Your task to perform on an android device: Is it going to rain tomorrow? Image 0: 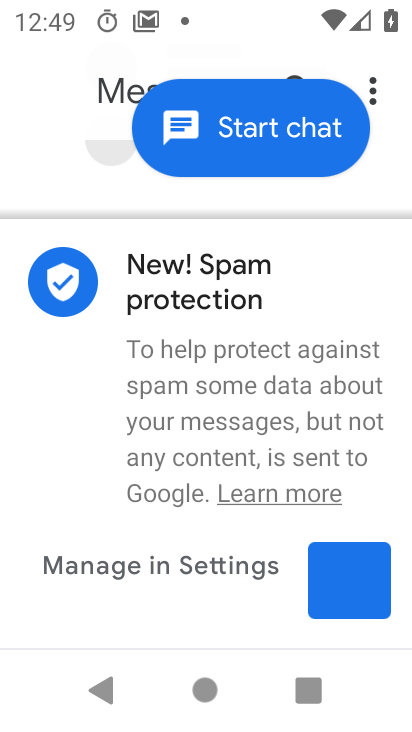
Step 0: click (401, 431)
Your task to perform on an android device: Is it going to rain tomorrow? Image 1: 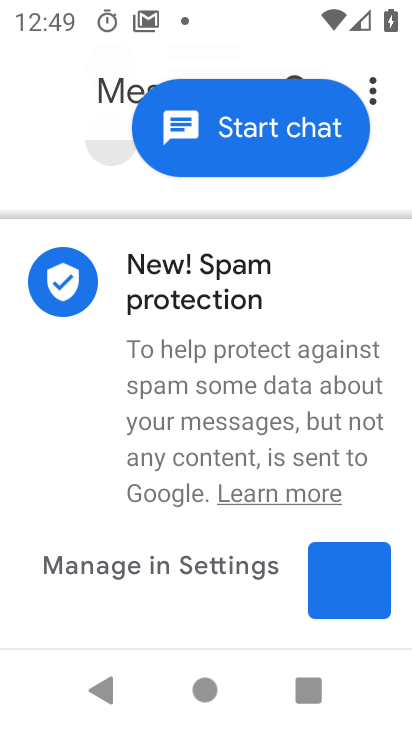
Step 1: press home button
Your task to perform on an android device: Is it going to rain tomorrow? Image 2: 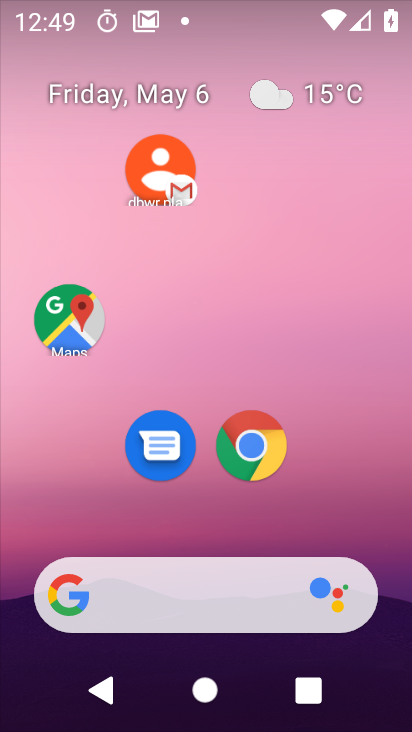
Step 2: drag from (6, 361) to (381, 305)
Your task to perform on an android device: Is it going to rain tomorrow? Image 3: 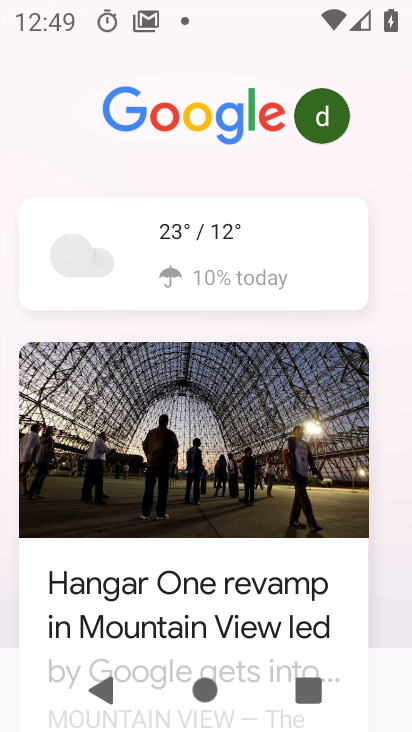
Step 3: drag from (23, 258) to (399, 283)
Your task to perform on an android device: Is it going to rain tomorrow? Image 4: 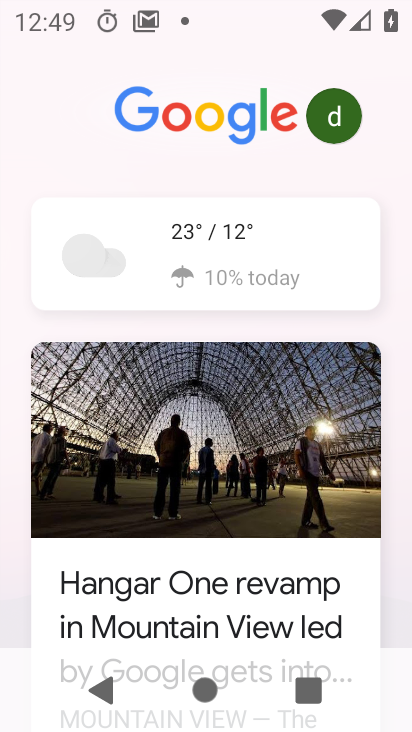
Step 4: click (247, 239)
Your task to perform on an android device: Is it going to rain tomorrow? Image 5: 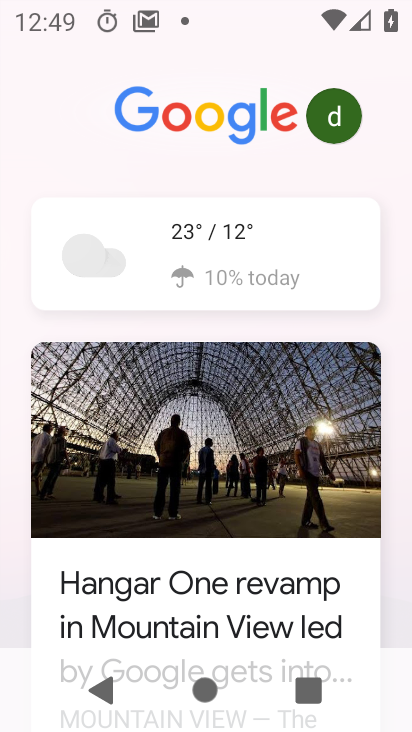
Step 5: click (236, 248)
Your task to perform on an android device: Is it going to rain tomorrow? Image 6: 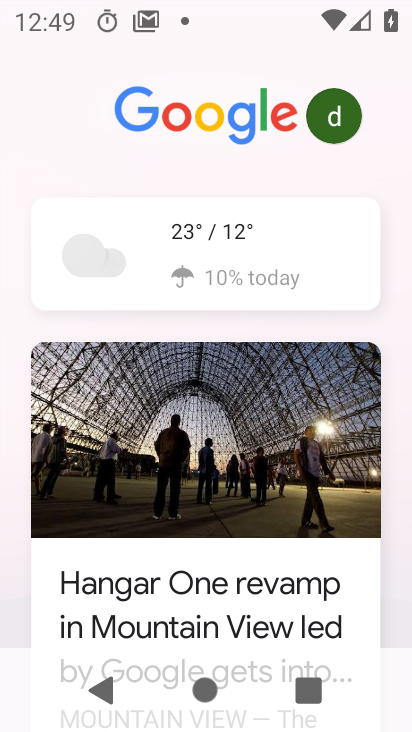
Step 6: click (233, 251)
Your task to perform on an android device: Is it going to rain tomorrow? Image 7: 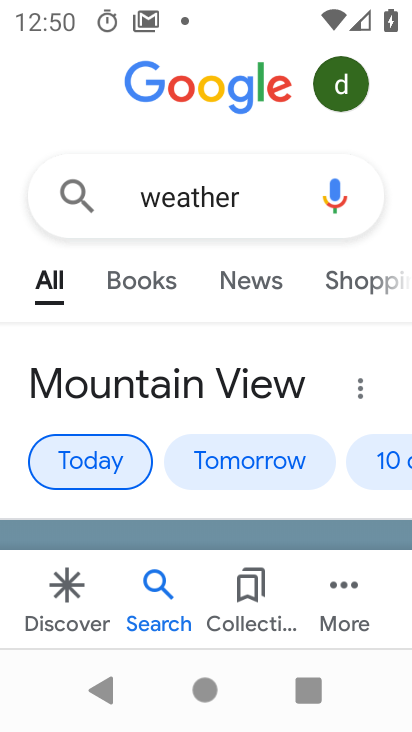
Step 7: task complete